Your task to perform on an android device: Turn off the flashlight Image 0: 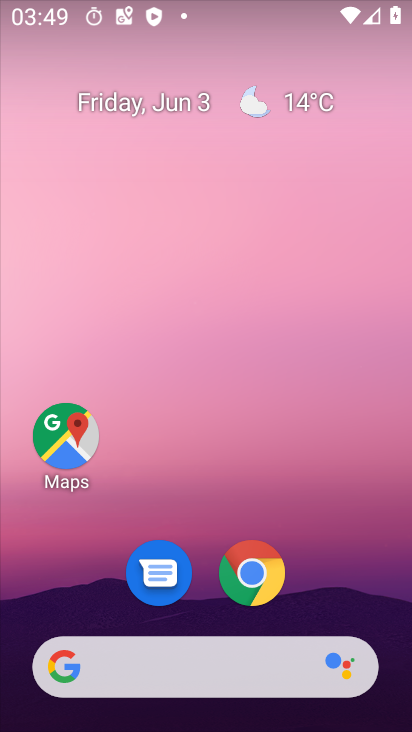
Step 0: drag from (306, 0) to (276, 583)
Your task to perform on an android device: Turn off the flashlight Image 1: 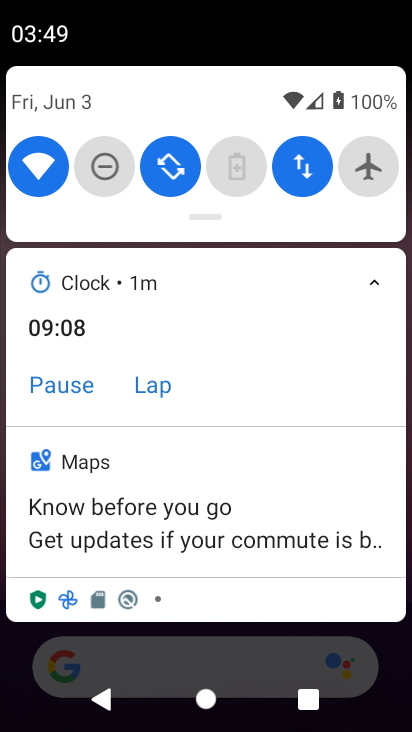
Step 1: task complete